Your task to perform on an android device: allow notifications from all sites in the chrome app Image 0: 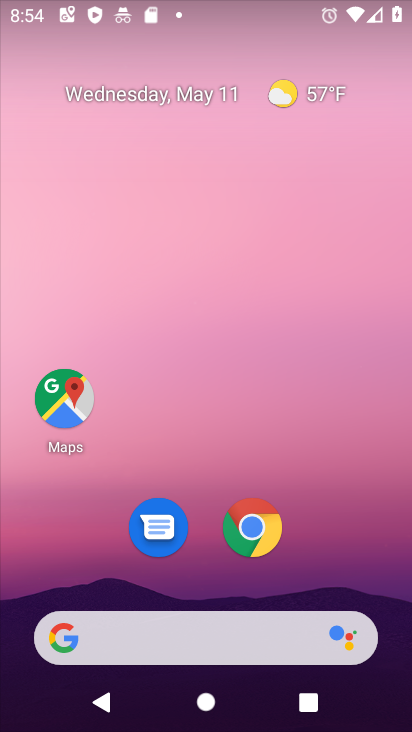
Step 0: click (247, 536)
Your task to perform on an android device: allow notifications from all sites in the chrome app Image 1: 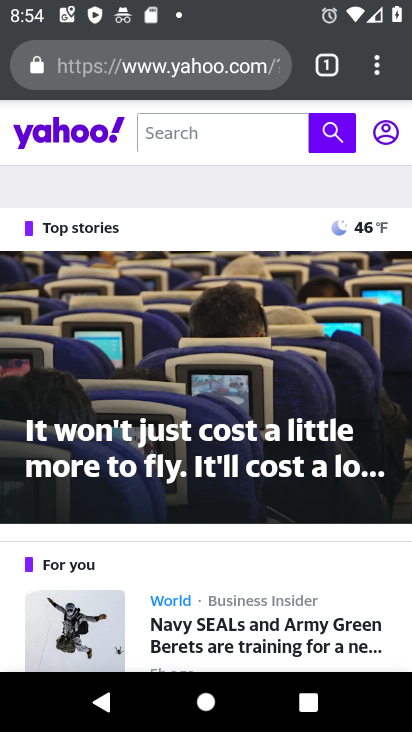
Step 1: click (382, 66)
Your task to perform on an android device: allow notifications from all sites in the chrome app Image 2: 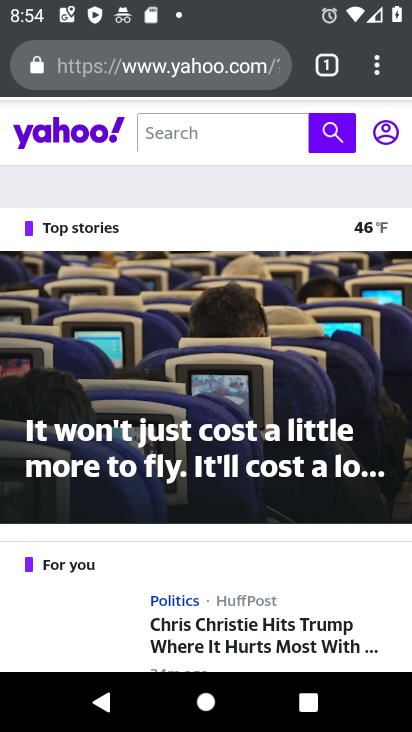
Step 2: click (376, 66)
Your task to perform on an android device: allow notifications from all sites in the chrome app Image 3: 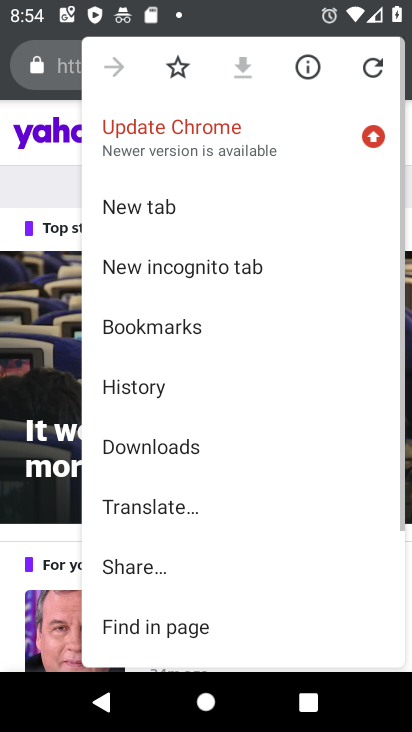
Step 3: drag from (215, 531) to (208, 165)
Your task to perform on an android device: allow notifications from all sites in the chrome app Image 4: 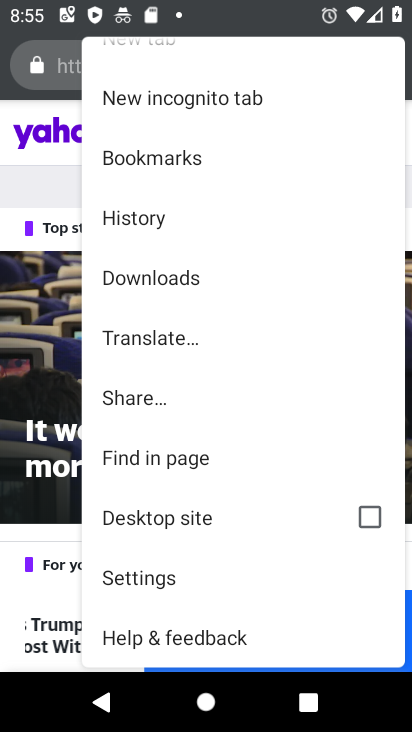
Step 4: click (158, 580)
Your task to perform on an android device: allow notifications from all sites in the chrome app Image 5: 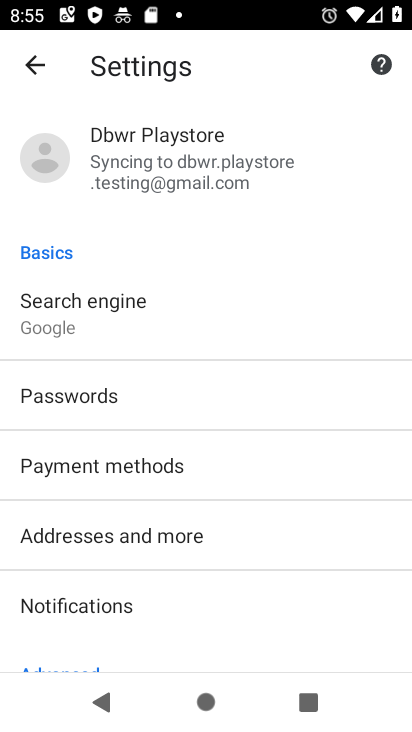
Step 5: drag from (149, 538) to (131, 120)
Your task to perform on an android device: allow notifications from all sites in the chrome app Image 6: 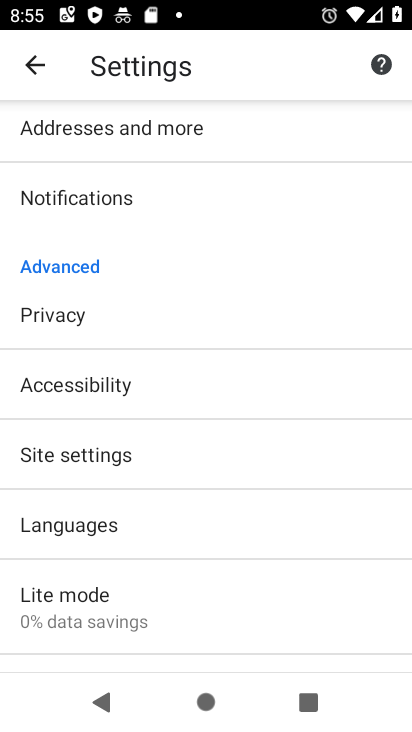
Step 6: click (103, 457)
Your task to perform on an android device: allow notifications from all sites in the chrome app Image 7: 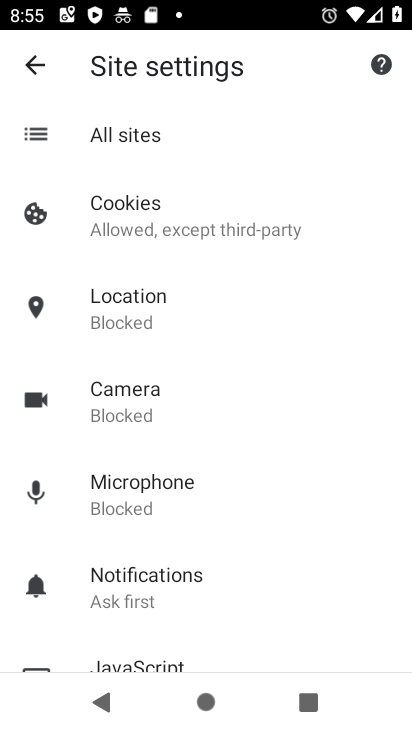
Step 7: click (104, 585)
Your task to perform on an android device: allow notifications from all sites in the chrome app Image 8: 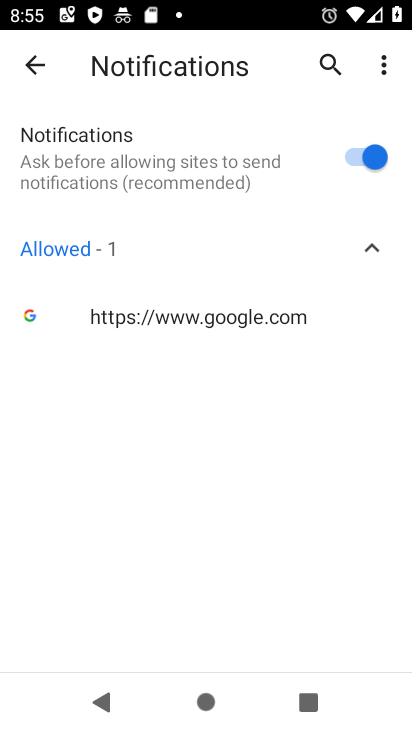
Step 8: task complete